Your task to perform on an android device: change keyboard looks Image 0: 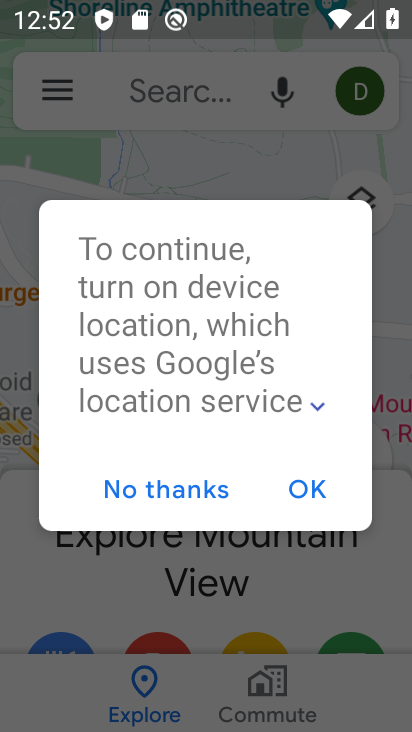
Step 0: press home button
Your task to perform on an android device: change keyboard looks Image 1: 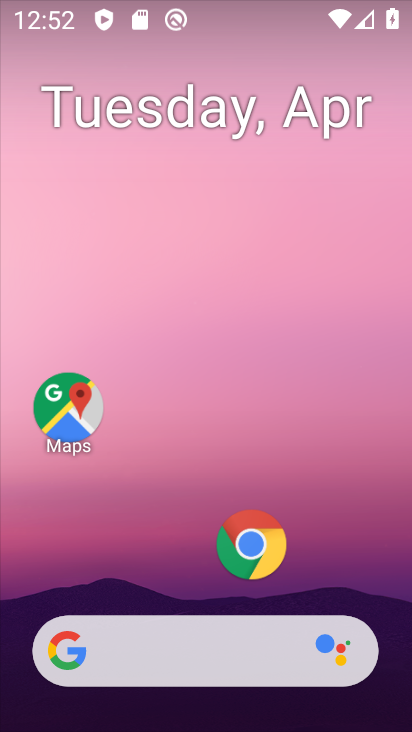
Step 1: drag from (146, 580) to (195, 165)
Your task to perform on an android device: change keyboard looks Image 2: 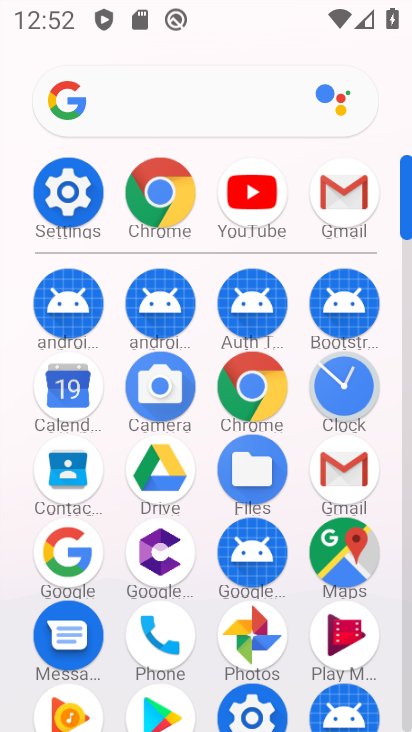
Step 2: click (54, 192)
Your task to perform on an android device: change keyboard looks Image 3: 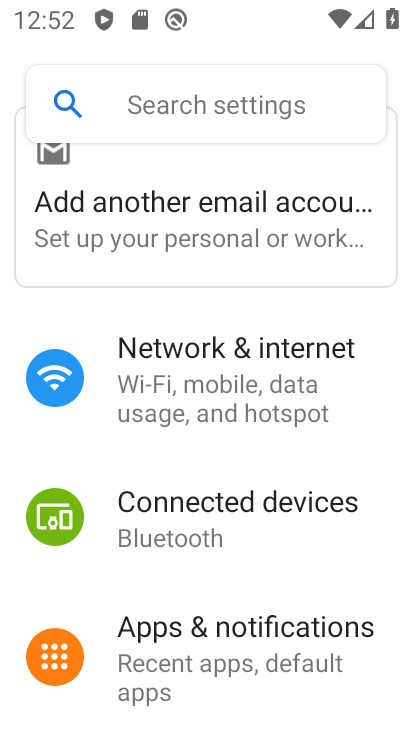
Step 3: drag from (224, 660) to (283, 162)
Your task to perform on an android device: change keyboard looks Image 4: 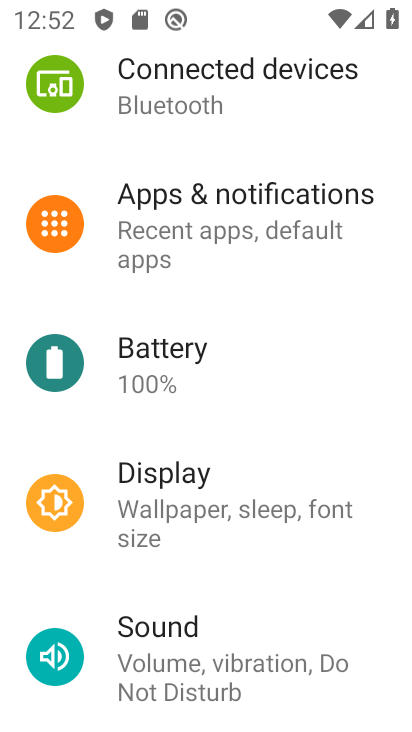
Step 4: drag from (217, 566) to (268, 126)
Your task to perform on an android device: change keyboard looks Image 5: 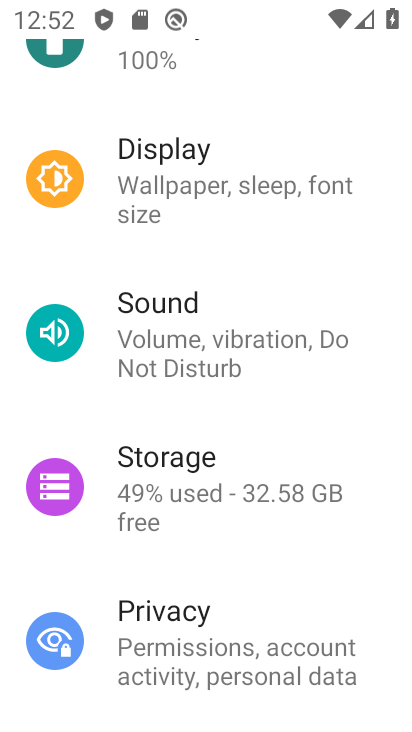
Step 5: drag from (163, 629) to (259, 167)
Your task to perform on an android device: change keyboard looks Image 6: 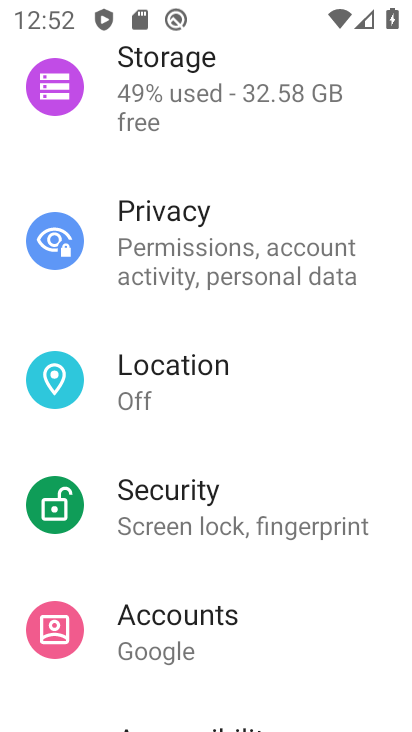
Step 6: drag from (217, 577) to (274, 251)
Your task to perform on an android device: change keyboard looks Image 7: 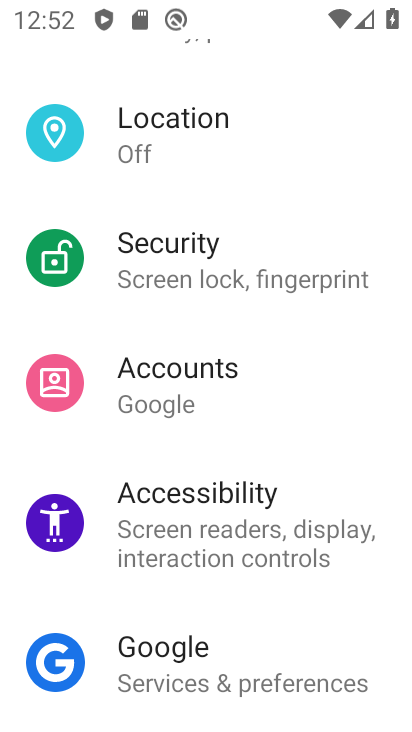
Step 7: drag from (230, 567) to (310, 238)
Your task to perform on an android device: change keyboard looks Image 8: 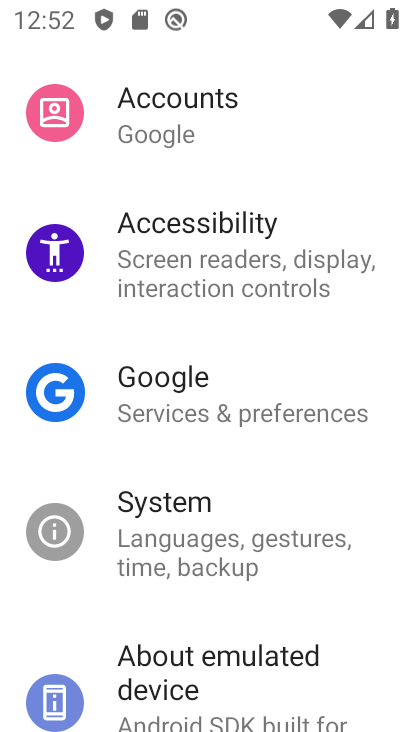
Step 8: click (260, 568)
Your task to perform on an android device: change keyboard looks Image 9: 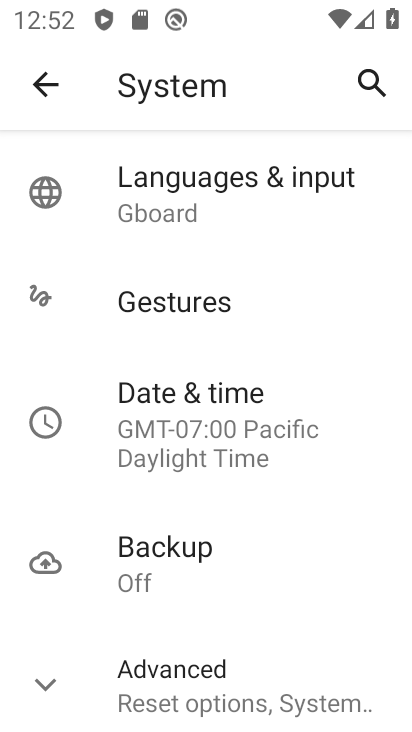
Step 9: click (276, 206)
Your task to perform on an android device: change keyboard looks Image 10: 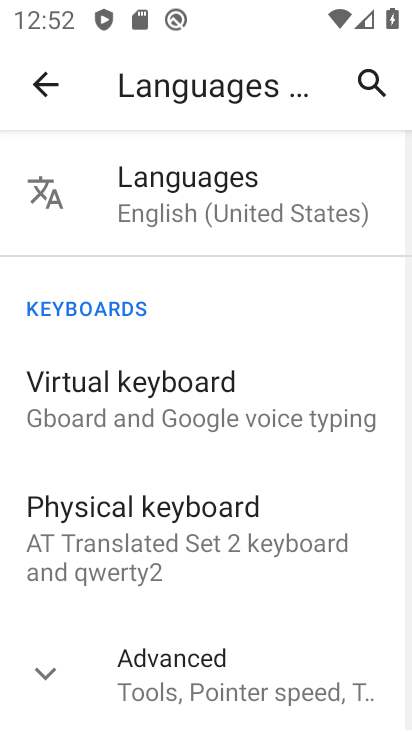
Step 10: click (236, 382)
Your task to perform on an android device: change keyboard looks Image 11: 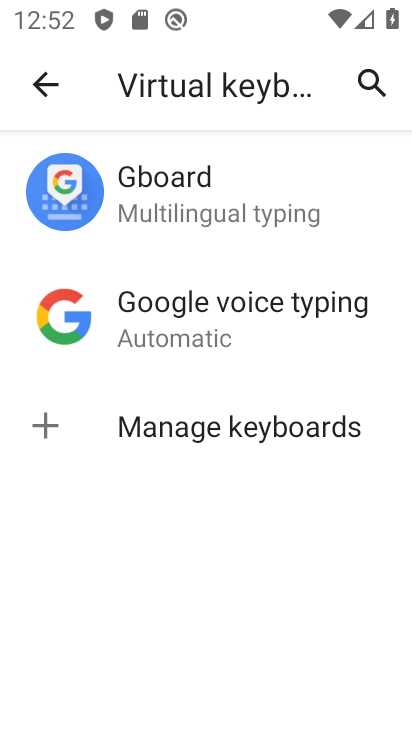
Step 11: click (215, 199)
Your task to perform on an android device: change keyboard looks Image 12: 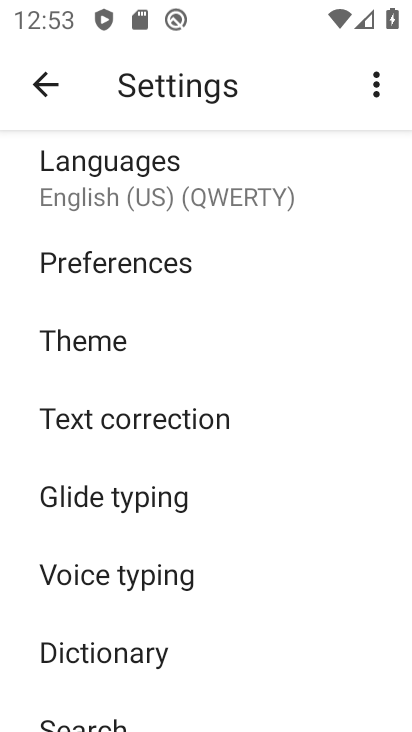
Step 12: click (133, 355)
Your task to perform on an android device: change keyboard looks Image 13: 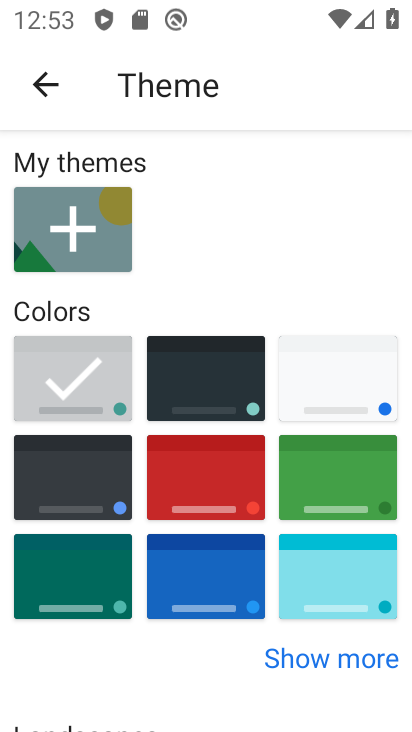
Step 13: click (317, 657)
Your task to perform on an android device: change keyboard looks Image 14: 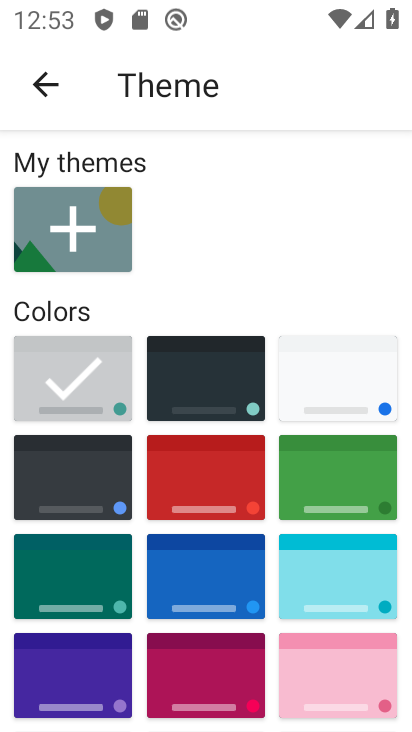
Step 14: drag from (235, 596) to (303, 127)
Your task to perform on an android device: change keyboard looks Image 15: 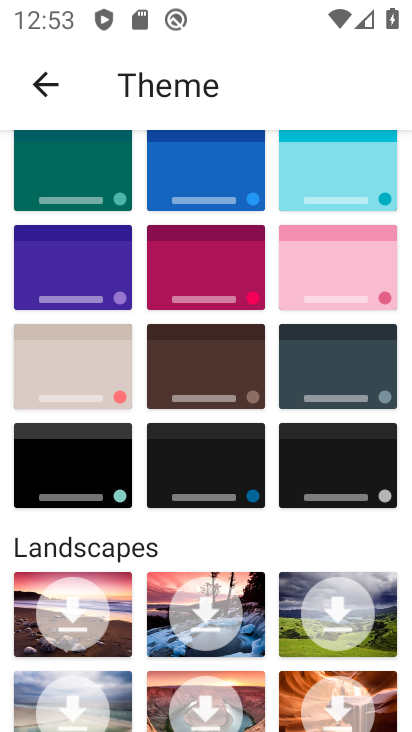
Step 15: drag from (255, 621) to (304, 94)
Your task to perform on an android device: change keyboard looks Image 16: 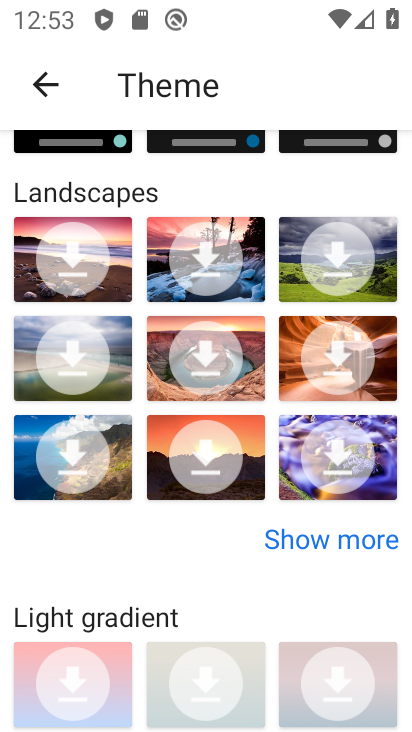
Step 16: drag from (272, 497) to (317, 196)
Your task to perform on an android device: change keyboard looks Image 17: 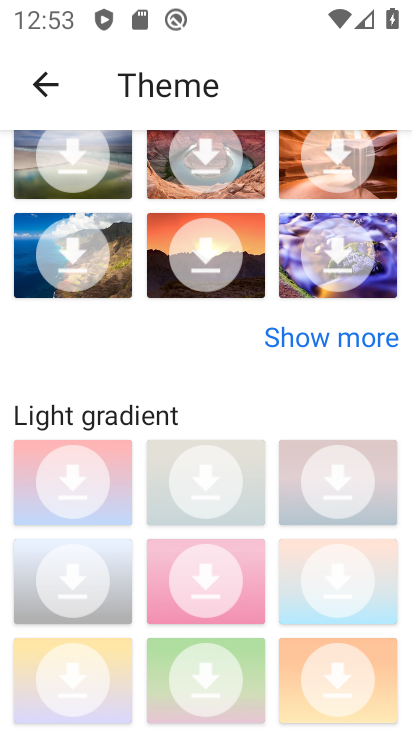
Step 17: click (178, 234)
Your task to perform on an android device: change keyboard looks Image 18: 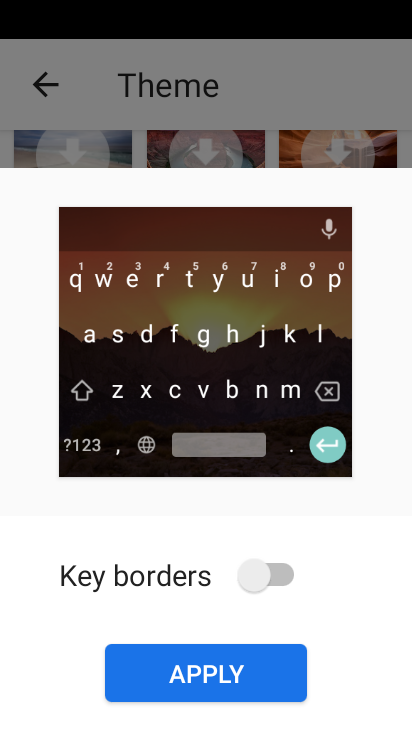
Step 18: click (268, 570)
Your task to perform on an android device: change keyboard looks Image 19: 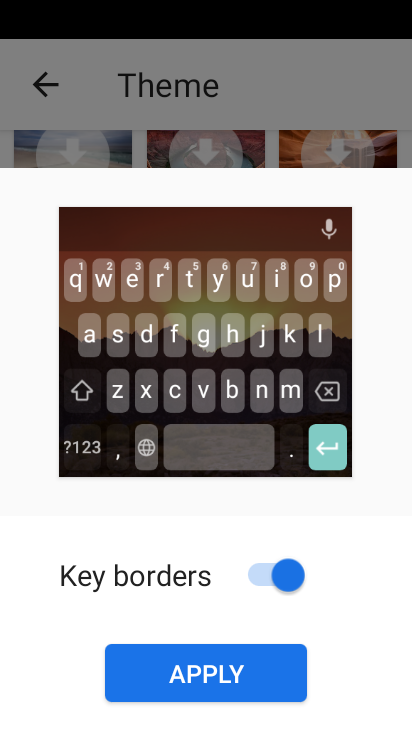
Step 19: click (211, 677)
Your task to perform on an android device: change keyboard looks Image 20: 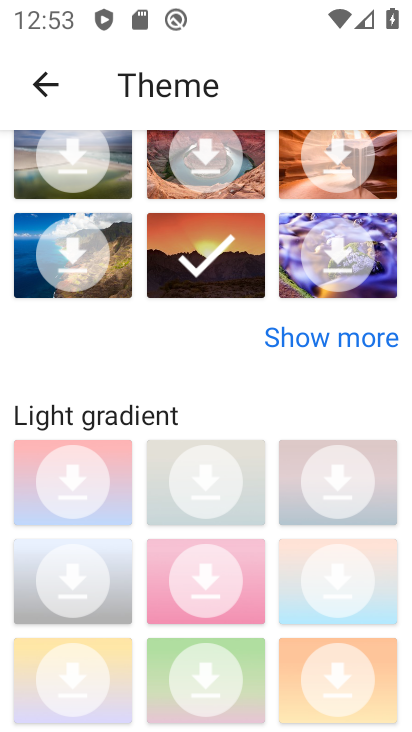
Step 20: task complete